Your task to perform on an android device: Show me productivity apps on the Play Store Image 0: 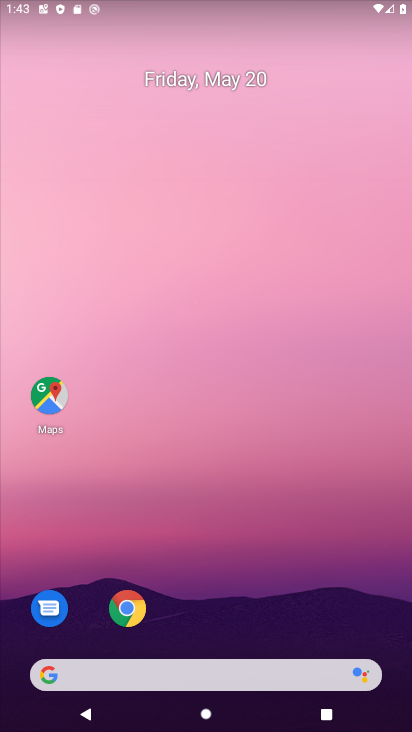
Step 0: drag from (223, 607) to (328, 80)
Your task to perform on an android device: Show me productivity apps on the Play Store Image 1: 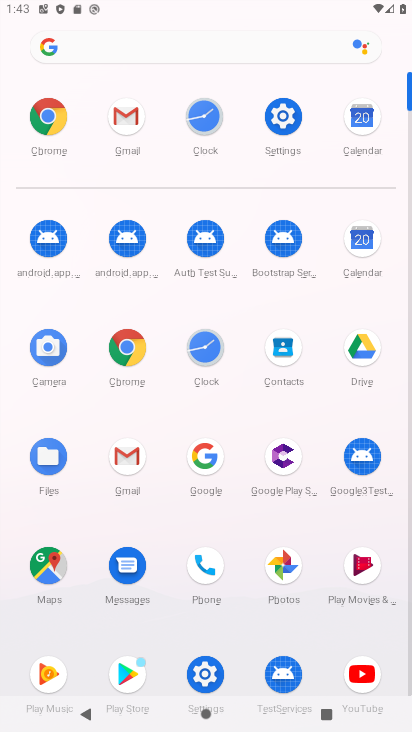
Step 1: click (123, 665)
Your task to perform on an android device: Show me productivity apps on the Play Store Image 2: 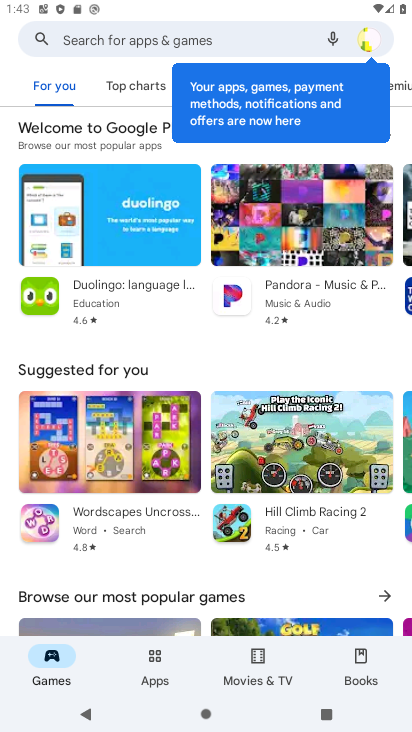
Step 2: click (156, 659)
Your task to perform on an android device: Show me productivity apps on the Play Store Image 3: 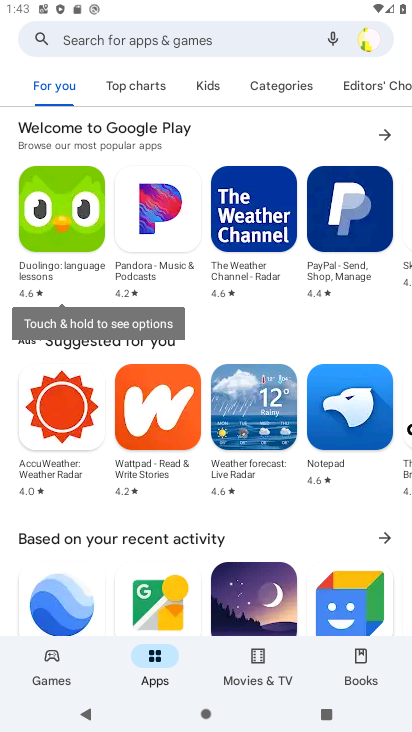
Step 3: drag from (155, 594) to (275, 118)
Your task to perform on an android device: Show me productivity apps on the Play Store Image 4: 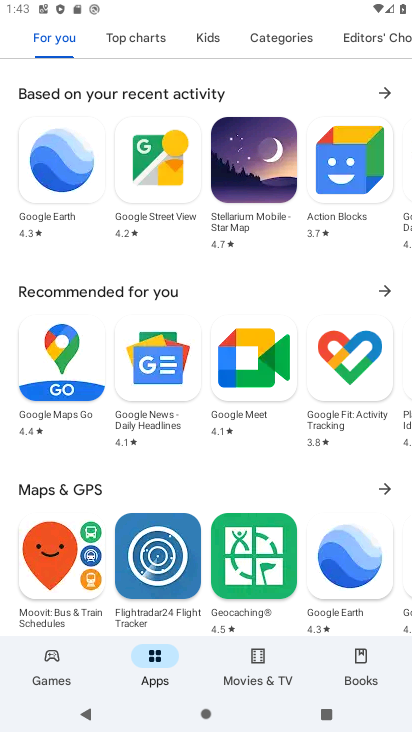
Step 4: drag from (205, 568) to (328, 104)
Your task to perform on an android device: Show me productivity apps on the Play Store Image 5: 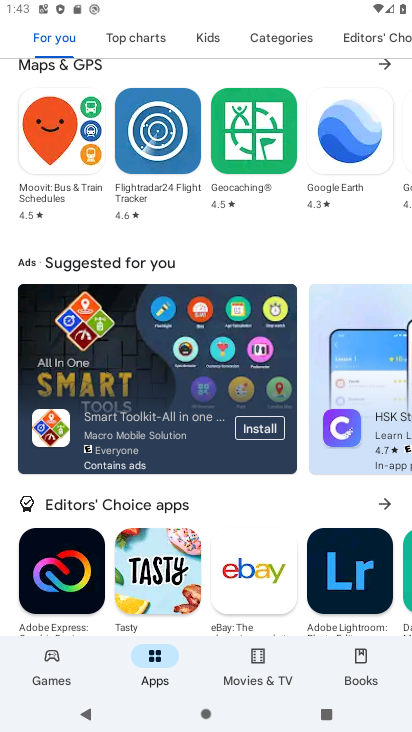
Step 5: drag from (204, 582) to (336, 107)
Your task to perform on an android device: Show me productivity apps on the Play Store Image 6: 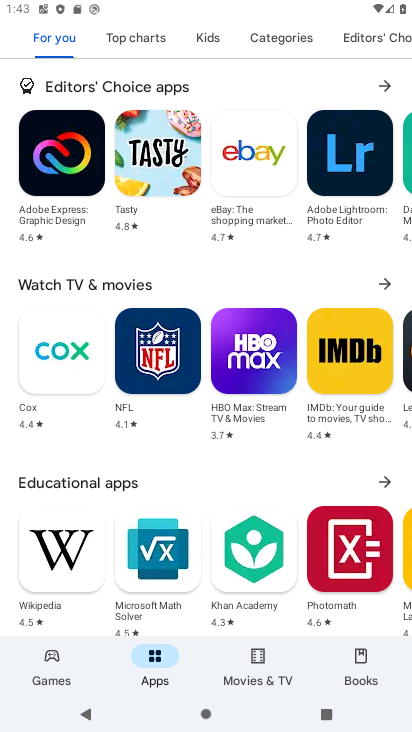
Step 6: drag from (196, 558) to (368, 89)
Your task to perform on an android device: Show me productivity apps on the Play Store Image 7: 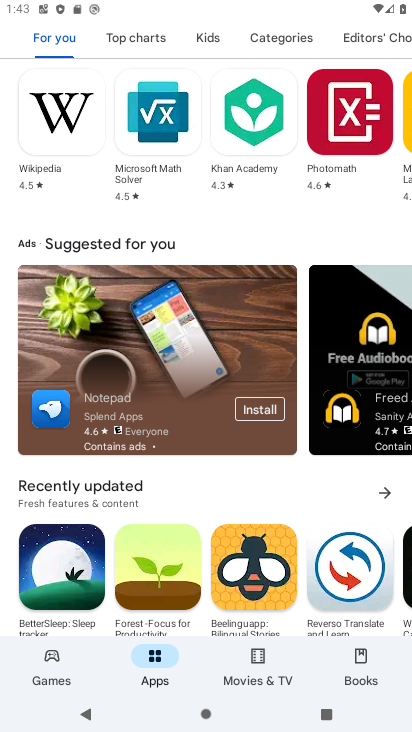
Step 7: drag from (184, 586) to (300, 135)
Your task to perform on an android device: Show me productivity apps on the Play Store Image 8: 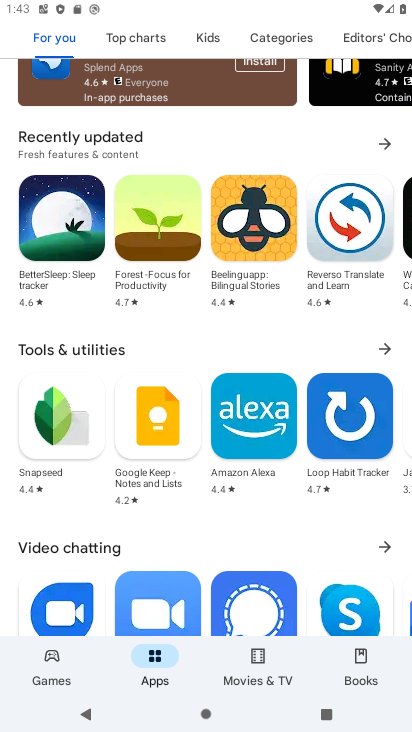
Step 8: drag from (198, 502) to (290, 130)
Your task to perform on an android device: Show me productivity apps on the Play Store Image 9: 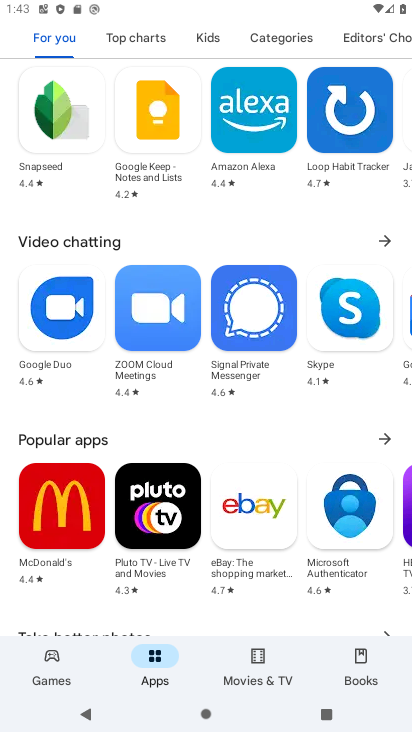
Step 9: drag from (195, 591) to (340, 93)
Your task to perform on an android device: Show me productivity apps on the Play Store Image 10: 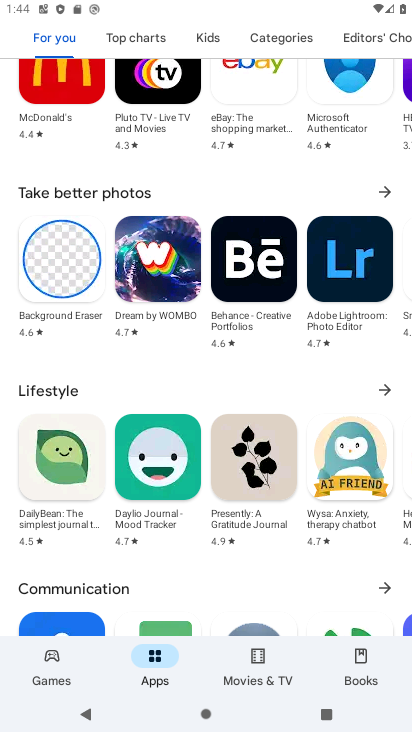
Step 10: drag from (214, 620) to (303, 97)
Your task to perform on an android device: Show me productivity apps on the Play Store Image 11: 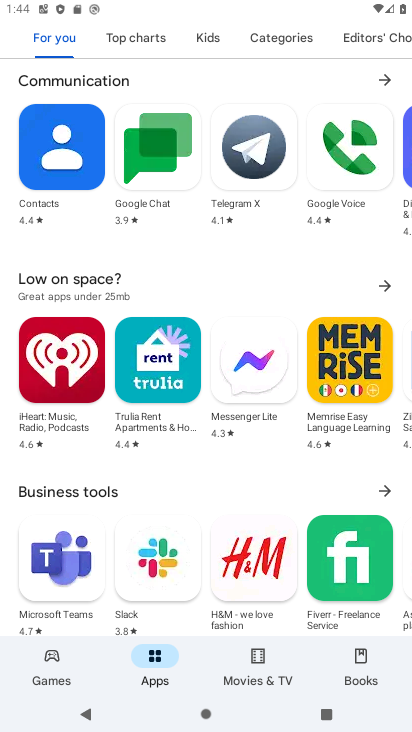
Step 11: drag from (186, 573) to (296, 147)
Your task to perform on an android device: Show me productivity apps on the Play Store Image 12: 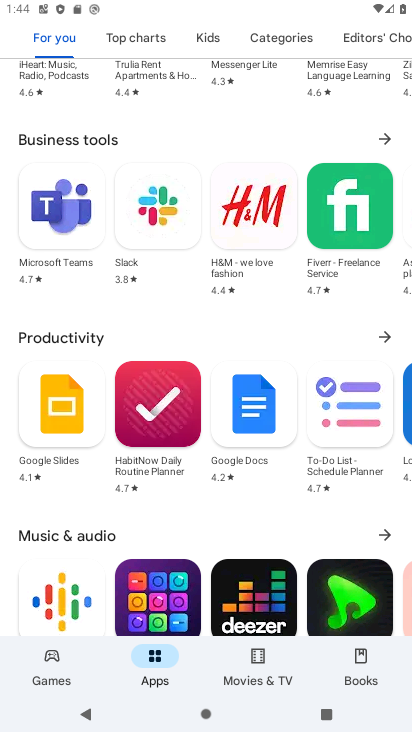
Step 12: click (378, 338)
Your task to perform on an android device: Show me productivity apps on the Play Store Image 13: 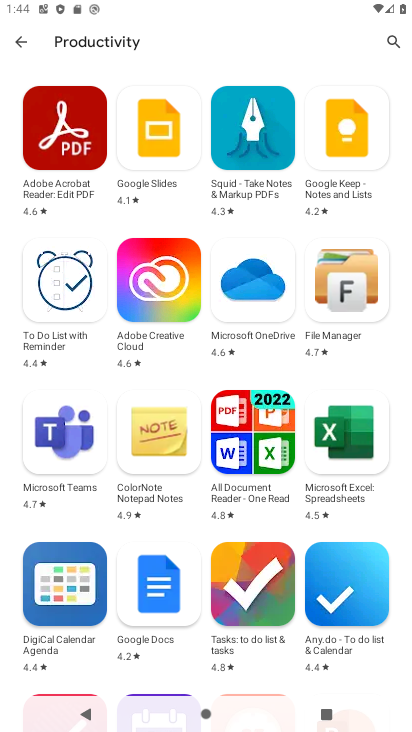
Step 13: task complete